Your task to perform on an android device: Open wifi settings Image 0: 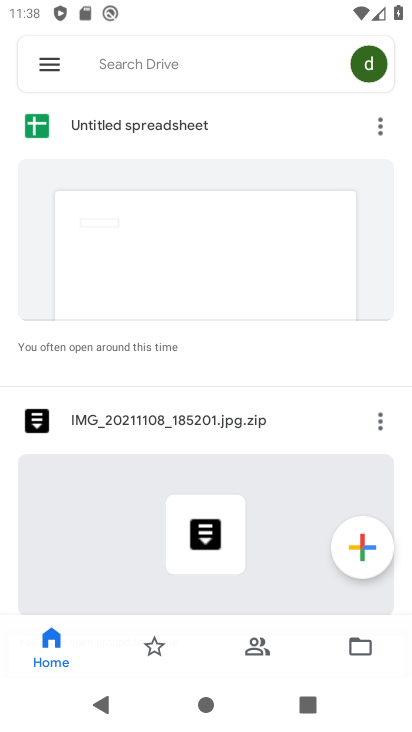
Step 0: press home button
Your task to perform on an android device: Open wifi settings Image 1: 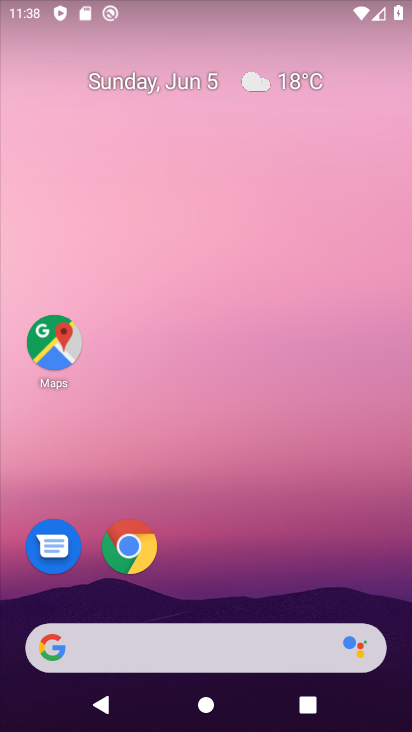
Step 1: drag from (220, 602) to (210, 374)
Your task to perform on an android device: Open wifi settings Image 2: 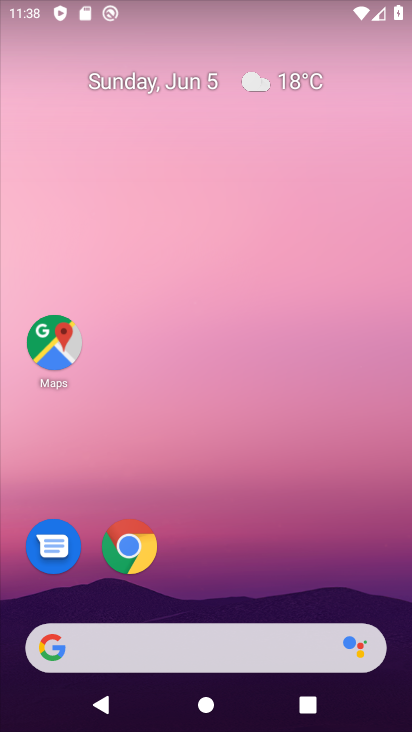
Step 2: drag from (239, 568) to (226, 281)
Your task to perform on an android device: Open wifi settings Image 3: 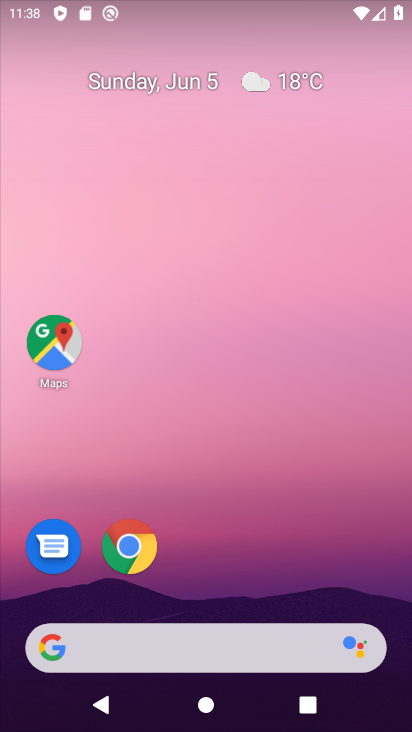
Step 3: drag from (217, 606) to (195, 198)
Your task to perform on an android device: Open wifi settings Image 4: 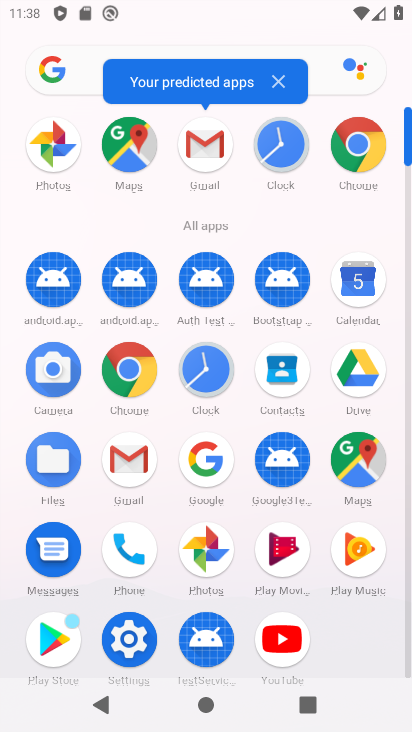
Step 4: click (115, 634)
Your task to perform on an android device: Open wifi settings Image 5: 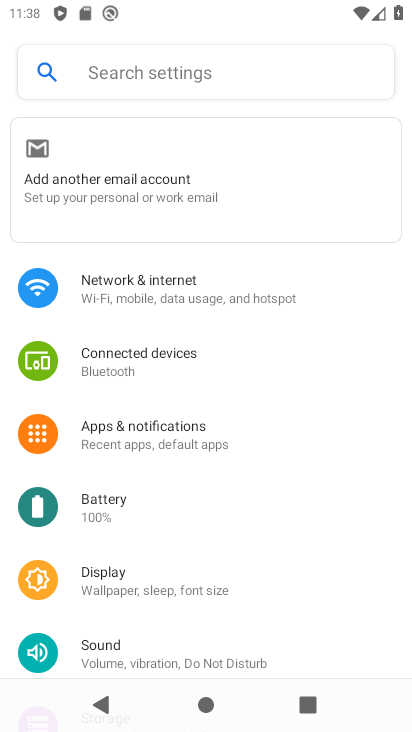
Step 5: click (180, 282)
Your task to perform on an android device: Open wifi settings Image 6: 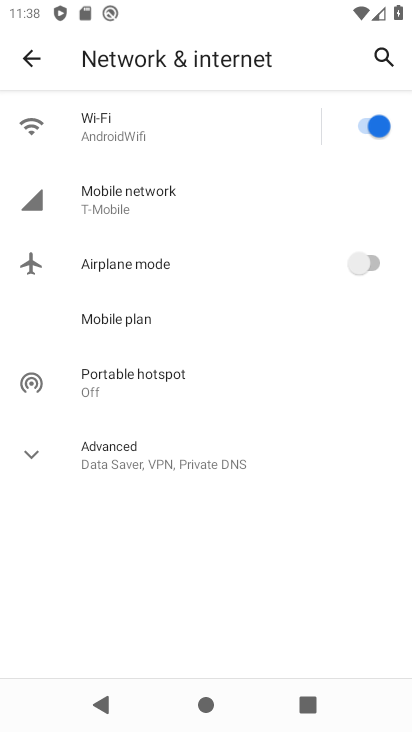
Step 6: click (162, 129)
Your task to perform on an android device: Open wifi settings Image 7: 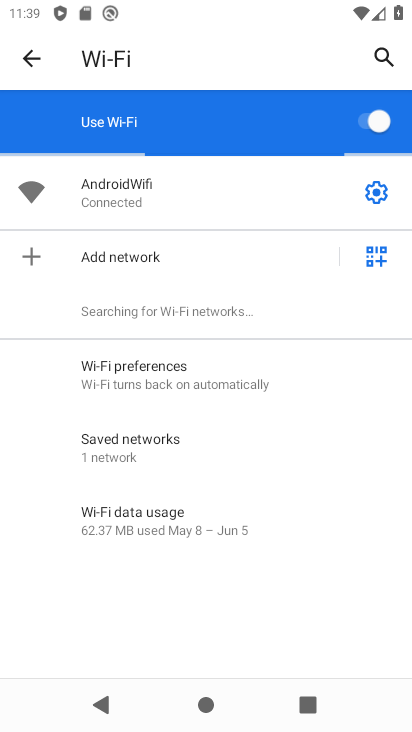
Step 7: task complete